Your task to perform on an android device: Open Chrome and go to settings Image 0: 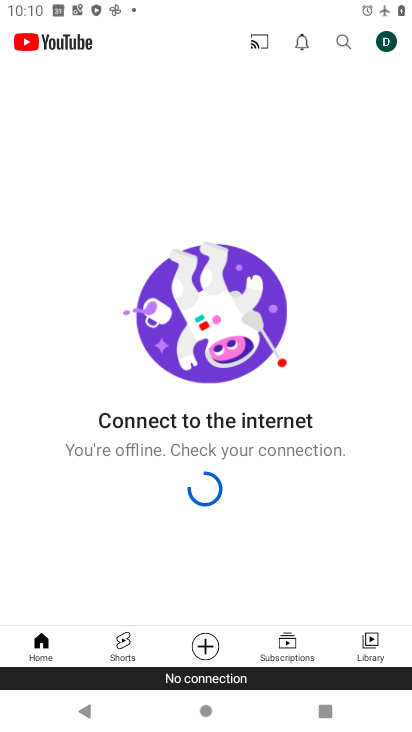
Step 0: press home button
Your task to perform on an android device: Open Chrome and go to settings Image 1: 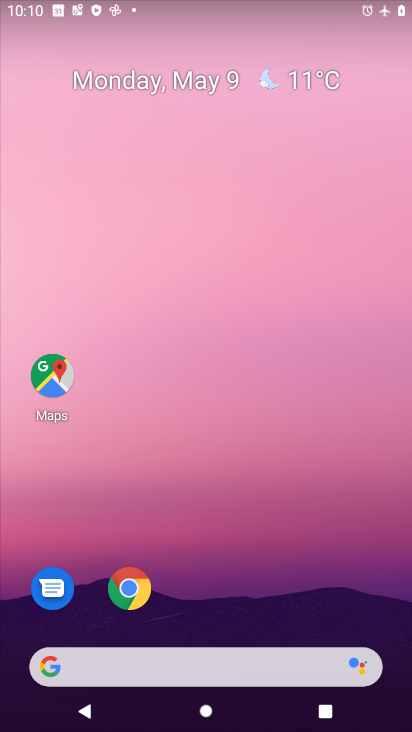
Step 1: drag from (349, 608) to (230, 113)
Your task to perform on an android device: Open Chrome and go to settings Image 2: 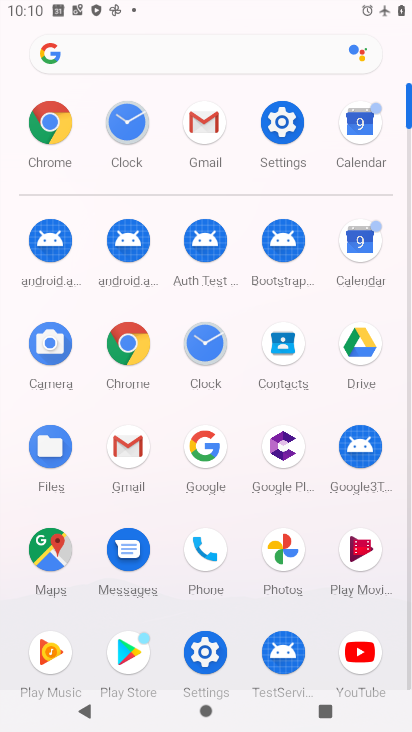
Step 2: click (119, 349)
Your task to perform on an android device: Open Chrome and go to settings Image 3: 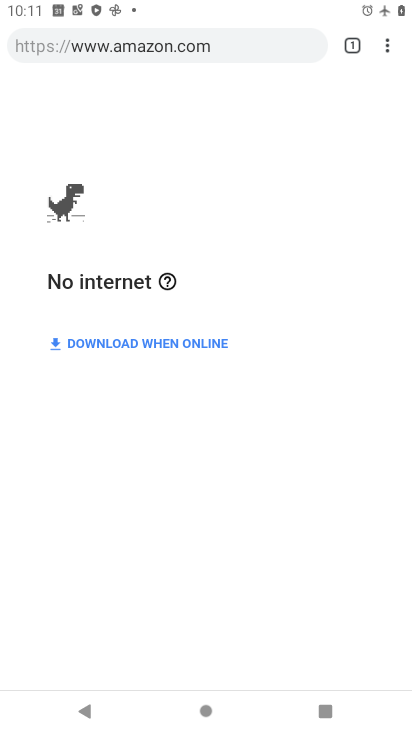
Step 3: click (390, 45)
Your task to perform on an android device: Open Chrome and go to settings Image 4: 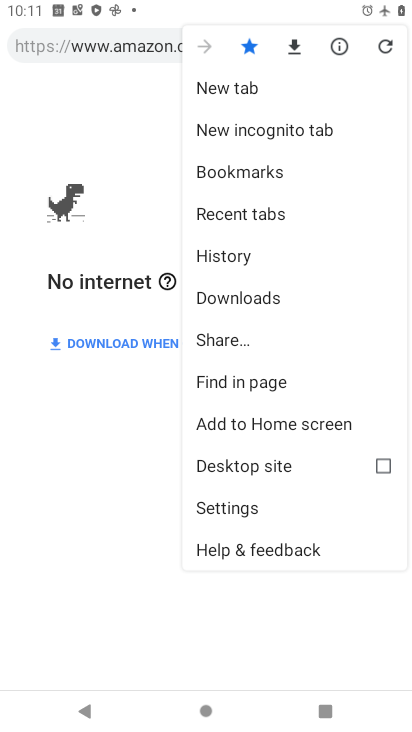
Step 4: click (239, 502)
Your task to perform on an android device: Open Chrome and go to settings Image 5: 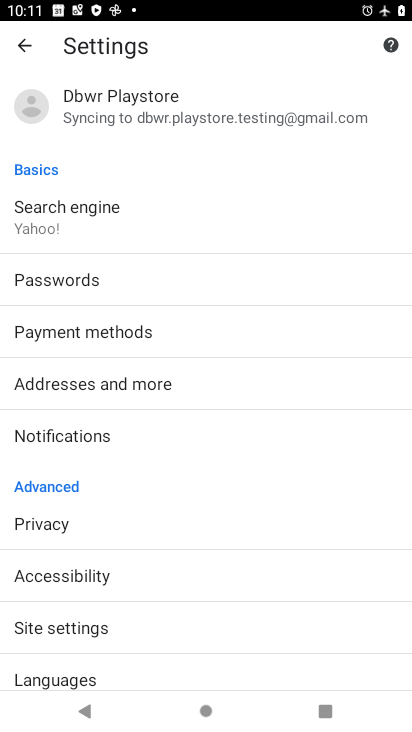
Step 5: task complete